Your task to perform on an android device: Search for Mexican restaurants on Maps Image 0: 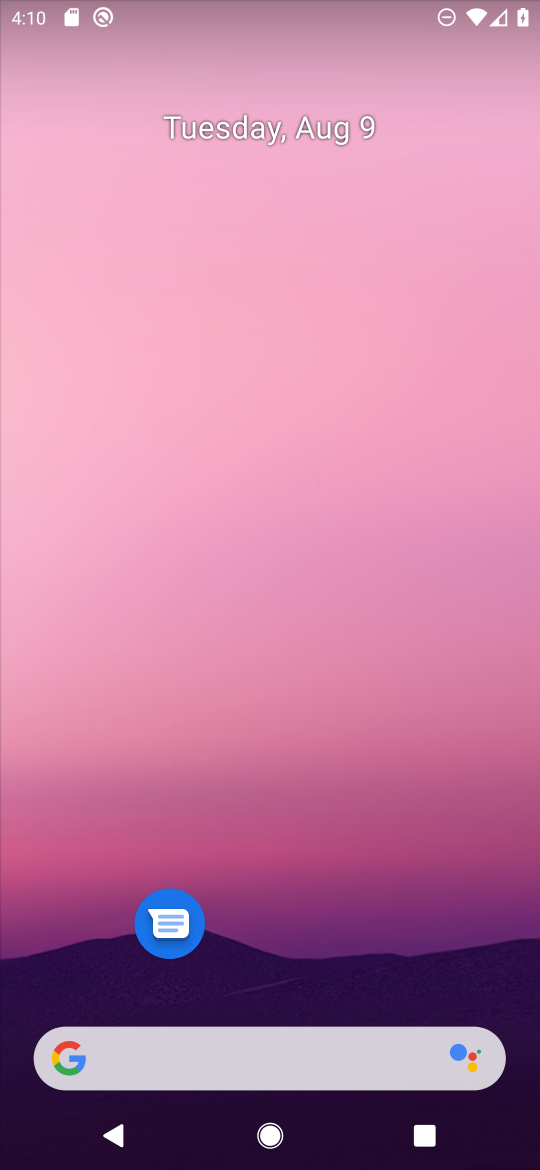
Step 0: drag from (374, 778) to (428, 64)
Your task to perform on an android device: Search for Mexican restaurants on Maps Image 1: 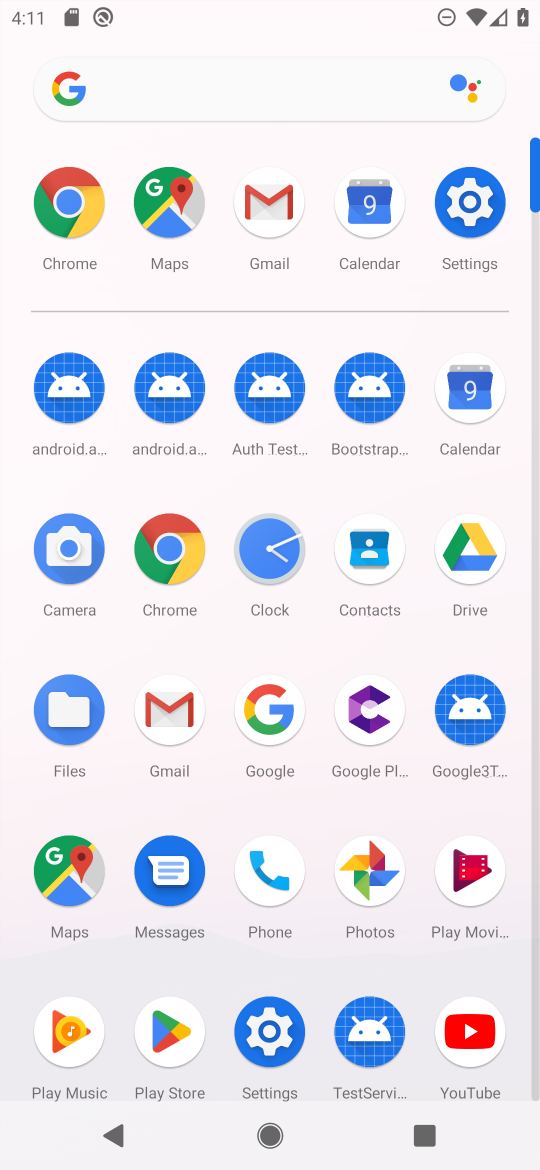
Step 1: click (155, 205)
Your task to perform on an android device: Search for Mexican restaurants on Maps Image 2: 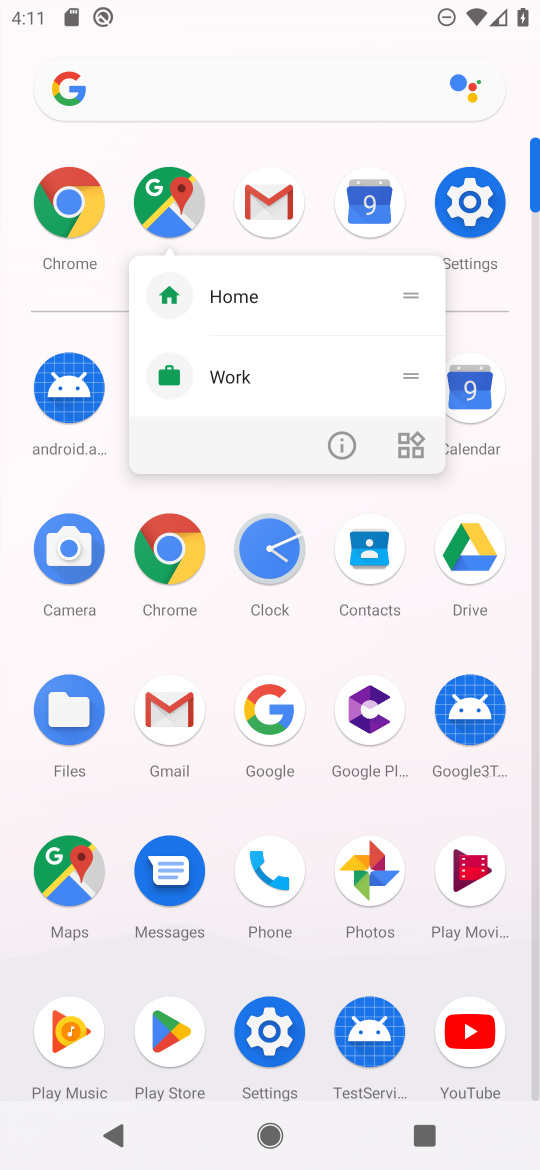
Step 2: click (166, 199)
Your task to perform on an android device: Search for Mexican restaurants on Maps Image 3: 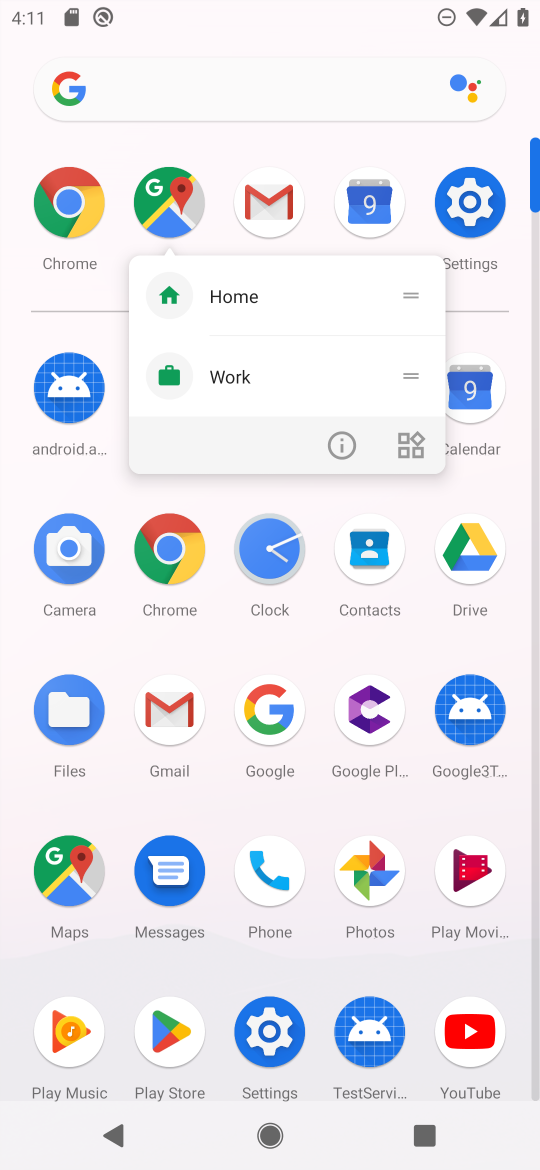
Step 3: click (170, 202)
Your task to perform on an android device: Search for Mexican restaurants on Maps Image 4: 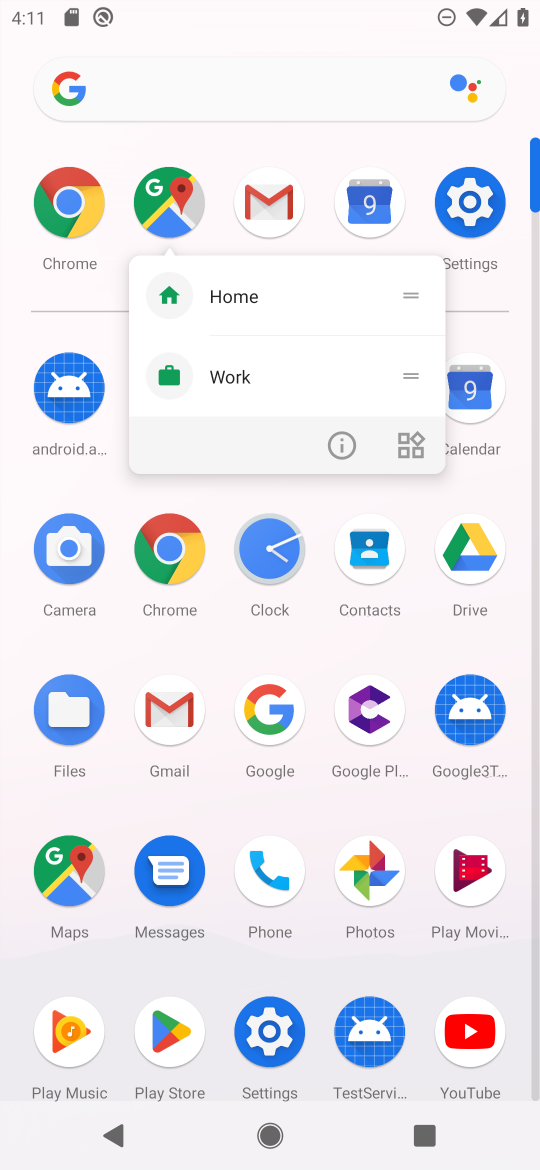
Step 4: click (166, 209)
Your task to perform on an android device: Search for Mexican restaurants on Maps Image 5: 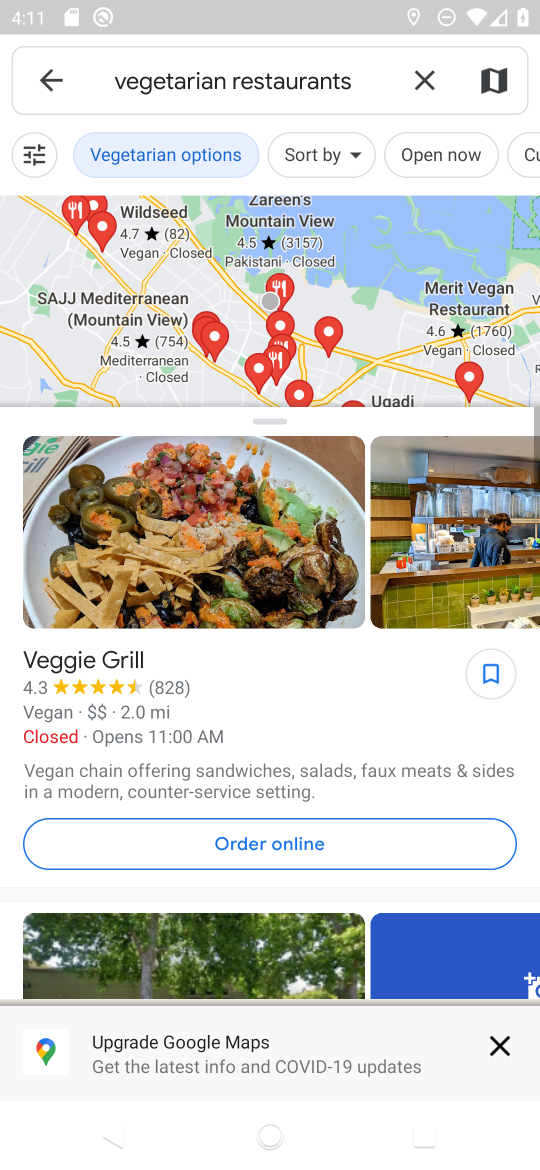
Step 5: click (421, 88)
Your task to perform on an android device: Search for Mexican restaurants on Maps Image 6: 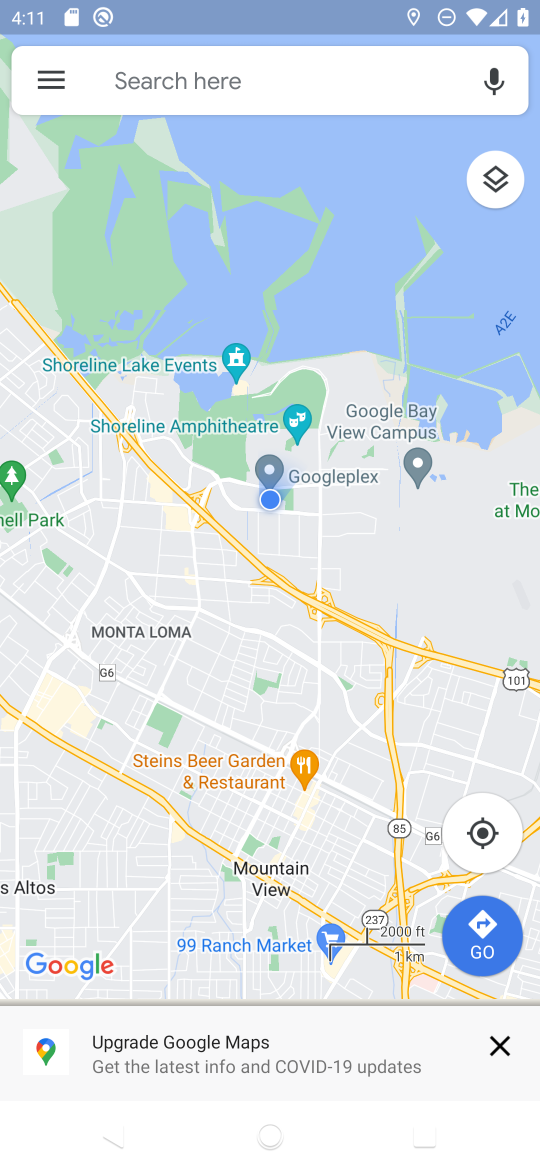
Step 6: click (255, 82)
Your task to perform on an android device: Search for Mexican restaurants on Maps Image 7: 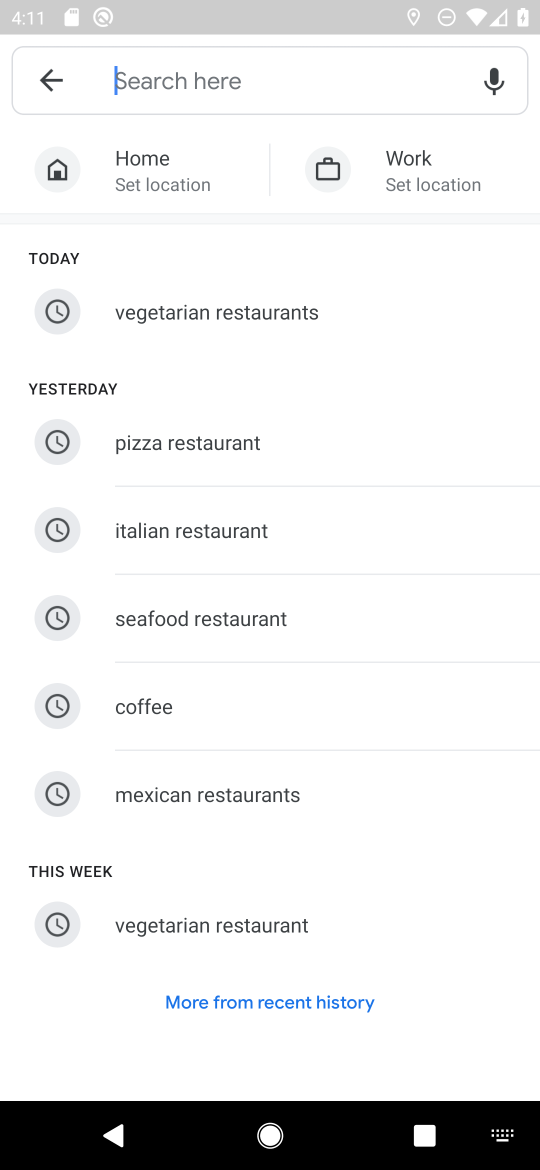
Step 7: click (208, 801)
Your task to perform on an android device: Search for Mexican restaurants on Maps Image 8: 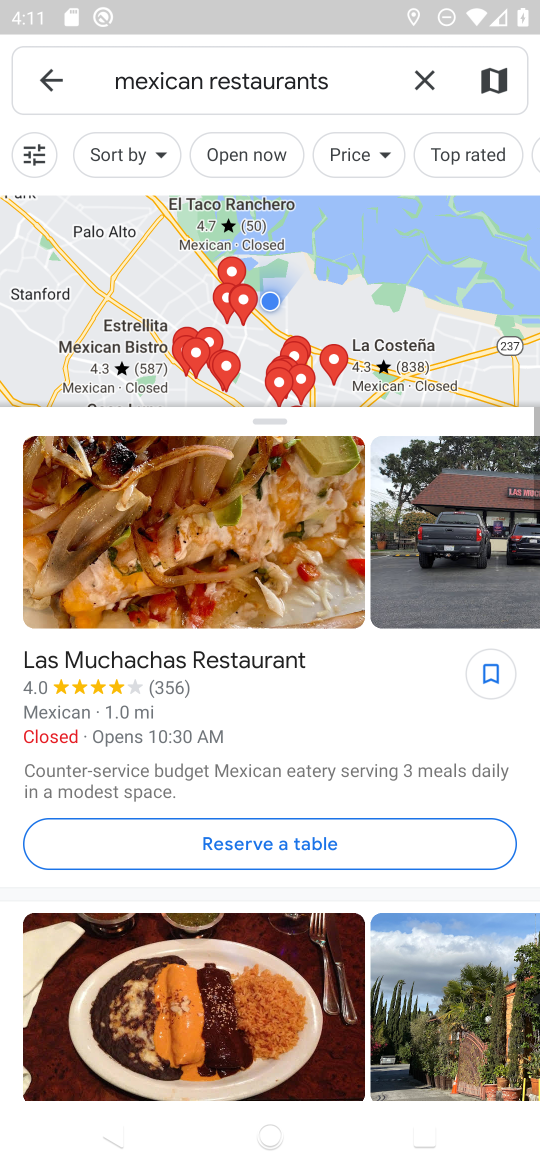
Step 8: task complete